Your task to perform on an android device: Open Reddit.com Image 0: 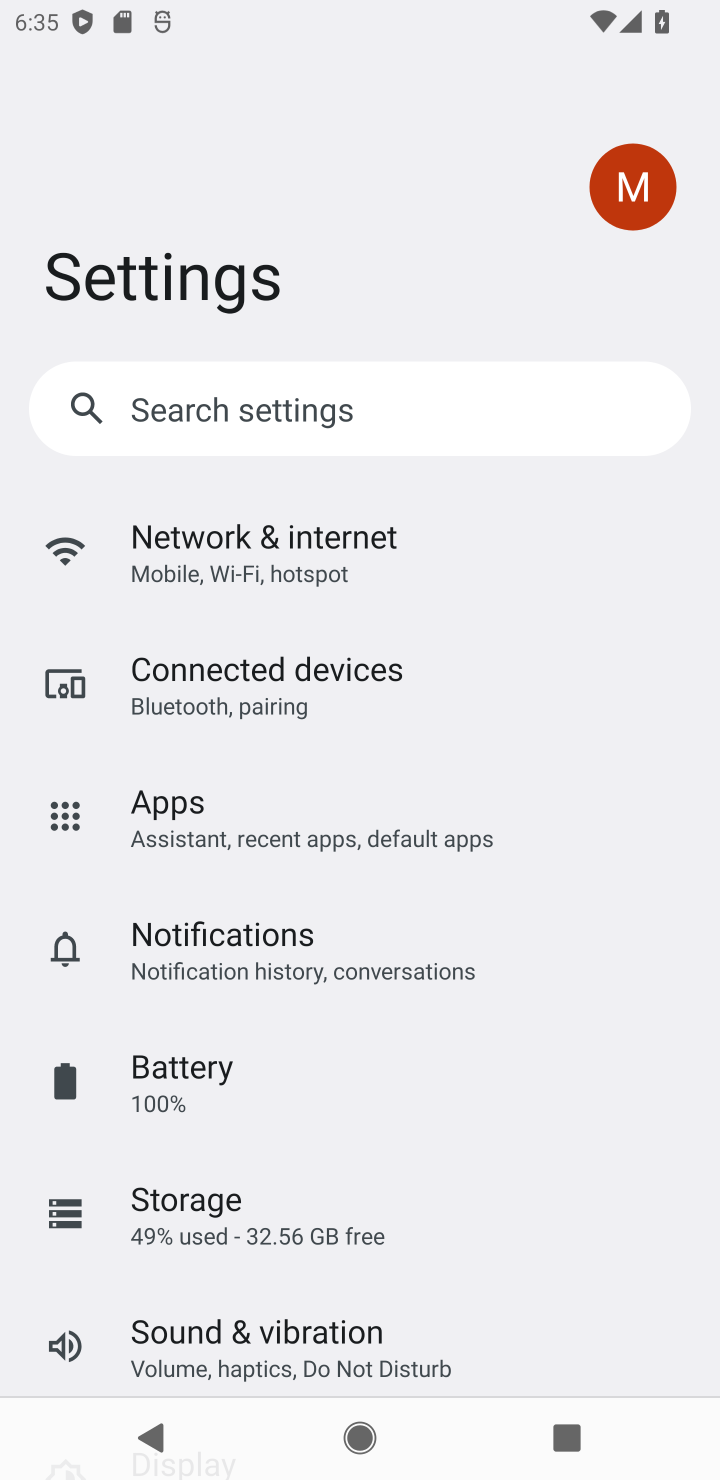
Step 0: press home button
Your task to perform on an android device: Open Reddit.com Image 1: 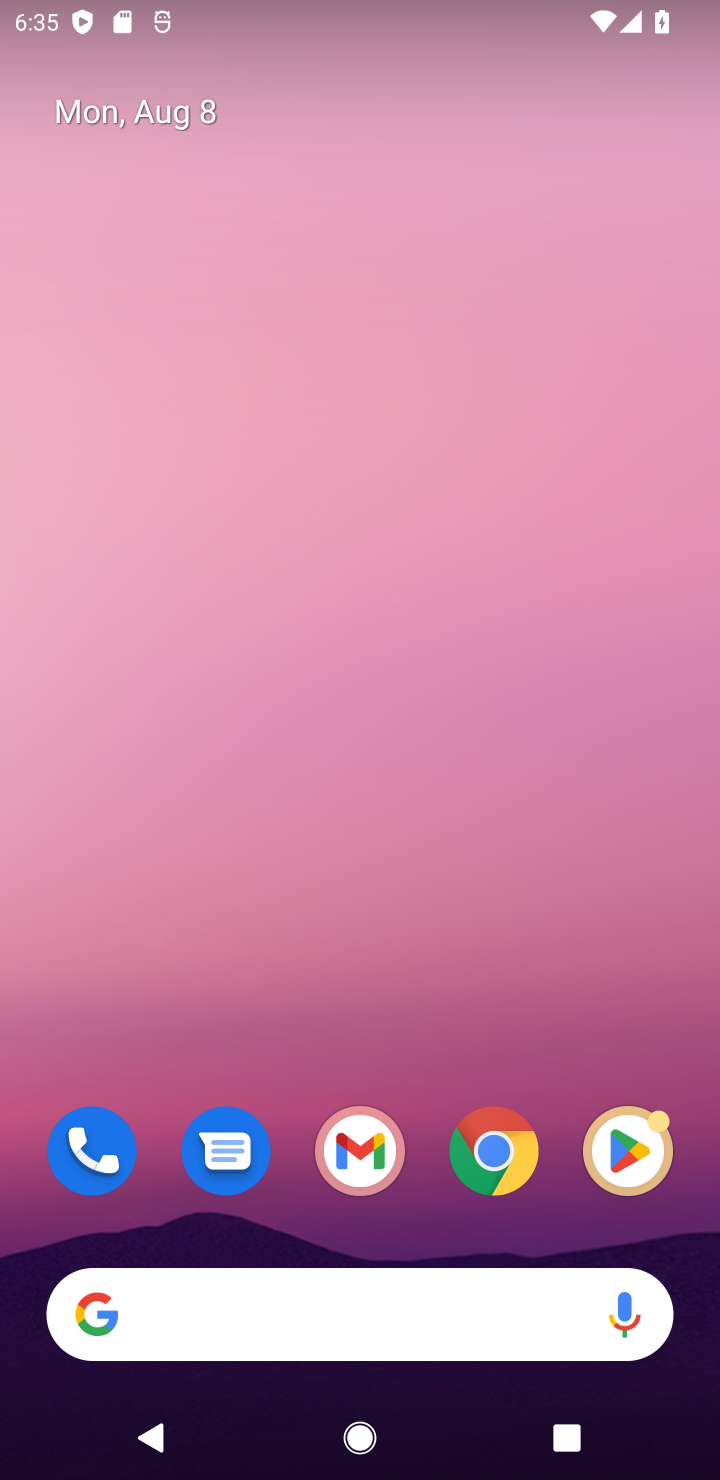
Step 1: click (491, 1160)
Your task to perform on an android device: Open Reddit.com Image 2: 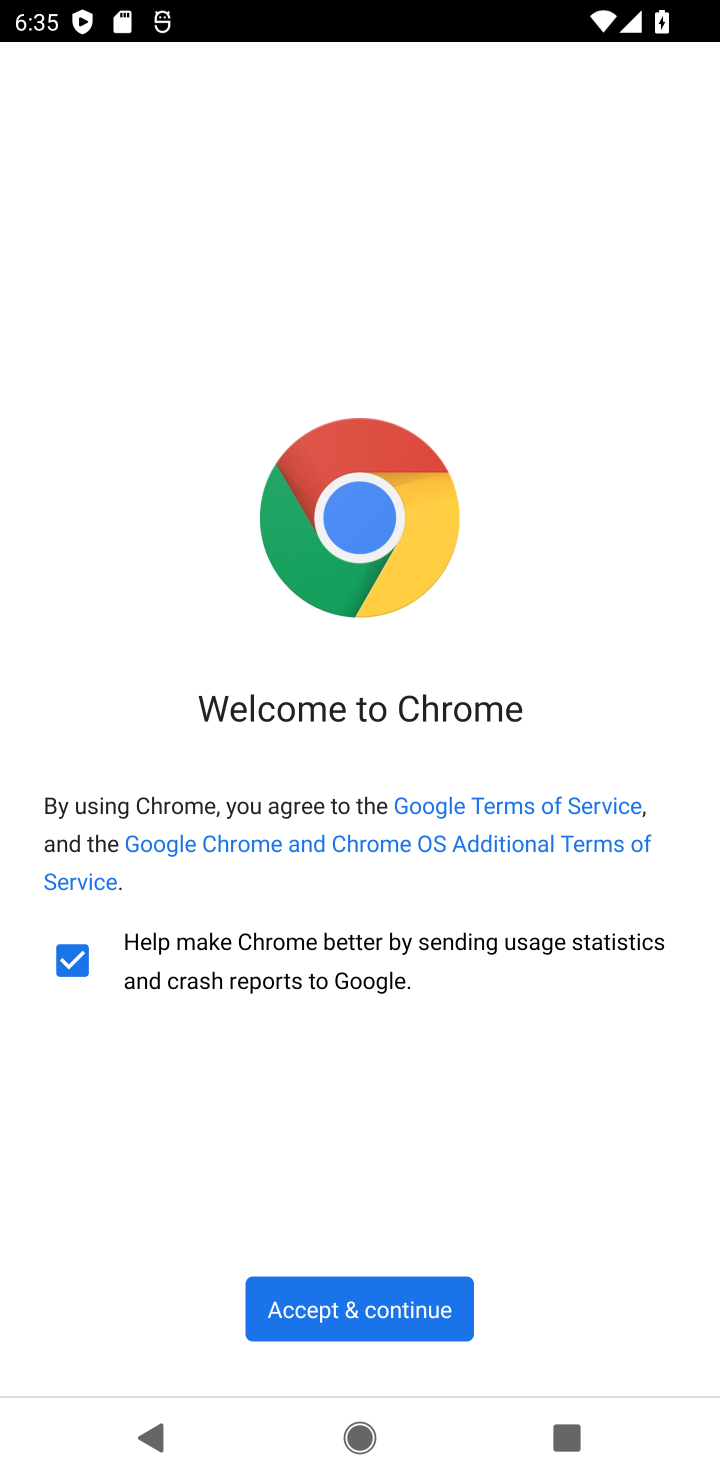
Step 2: click (387, 1324)
Your task to perform on an android device: Open Reddit.com Image 3: 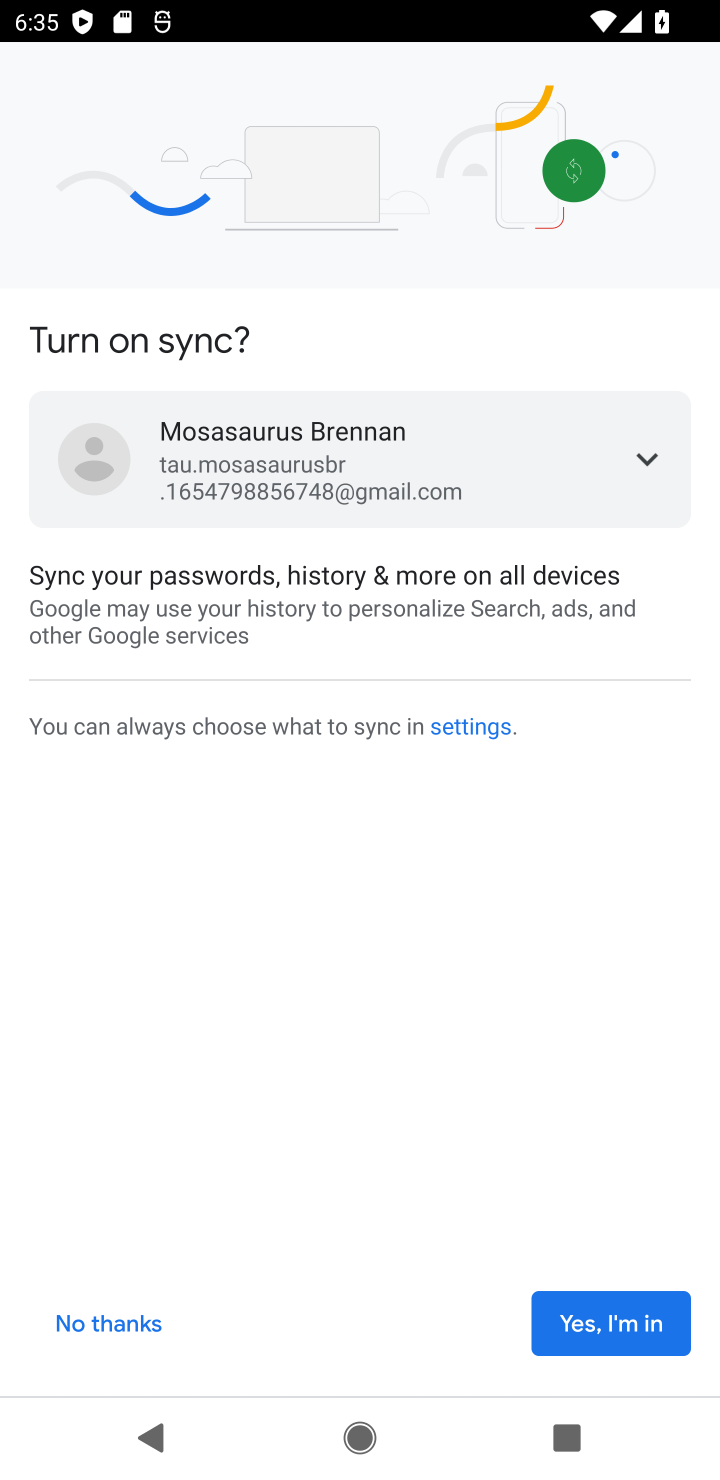
Step 3: click (607, 1321)
Your task to perform on an android device: Open Reddit.com Image 4: 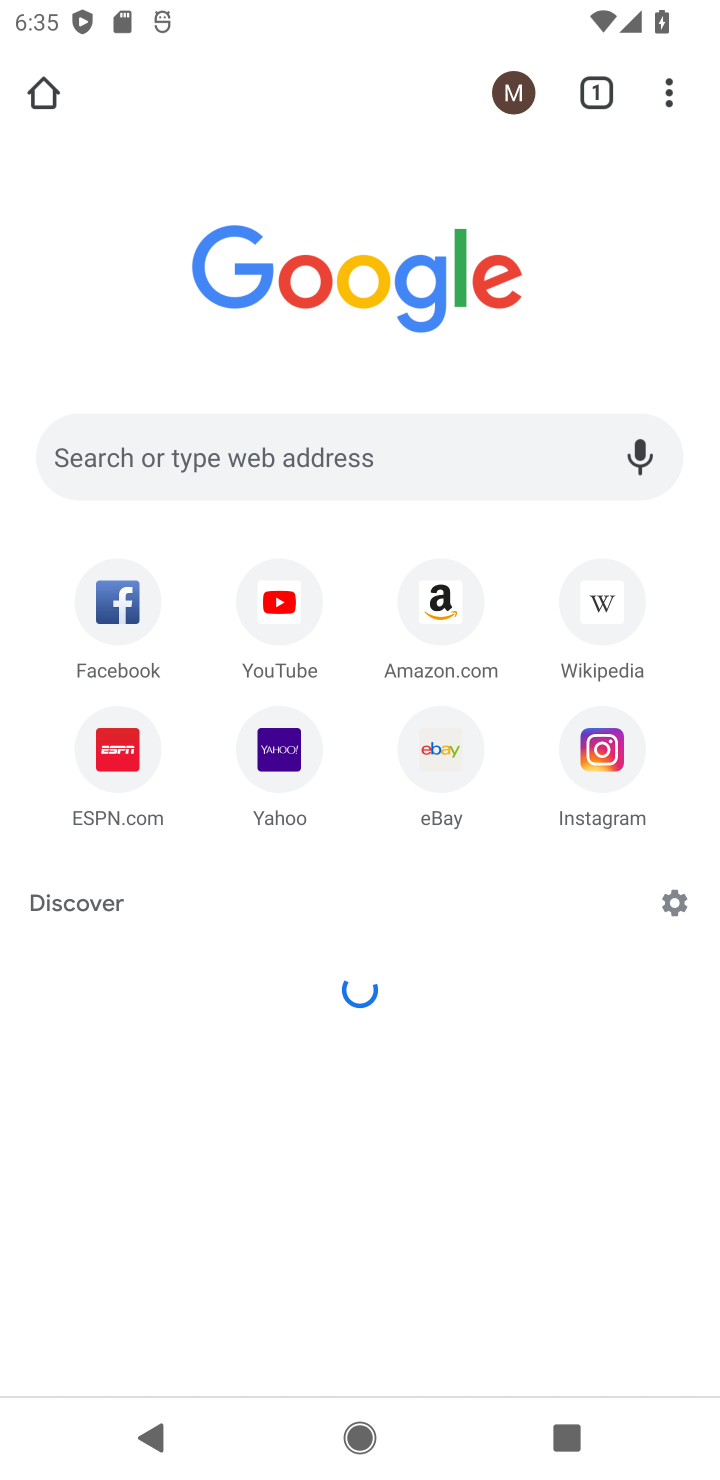
Step 4: click (340, 462)
Your task to perform on an android device: Open Reddit.com Image 5: 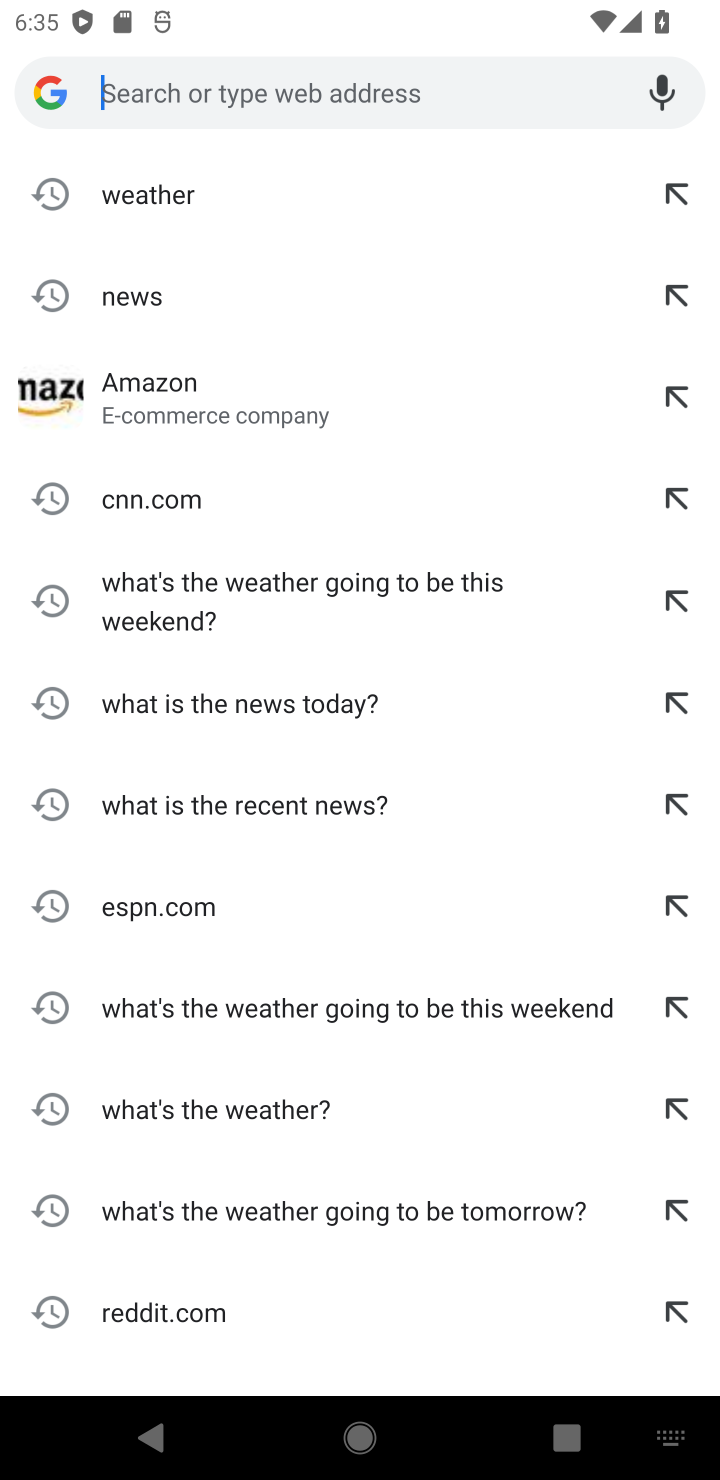
Step 5: type "reddit.com"
Your task to perform on an android device: Open Reddit.com Image 6: 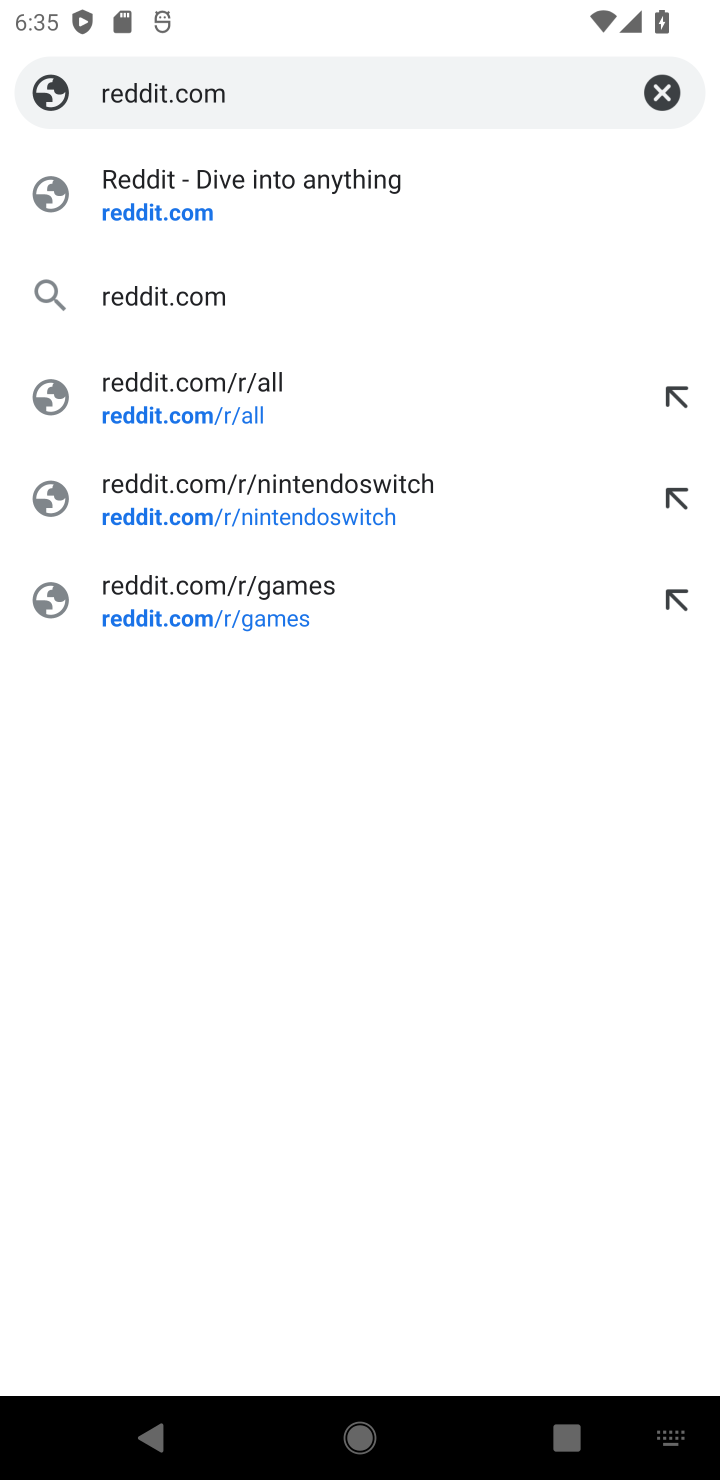
Step 6: click (215, 289)
Your task to perform on an android device: Open Reddit.com Image 7: 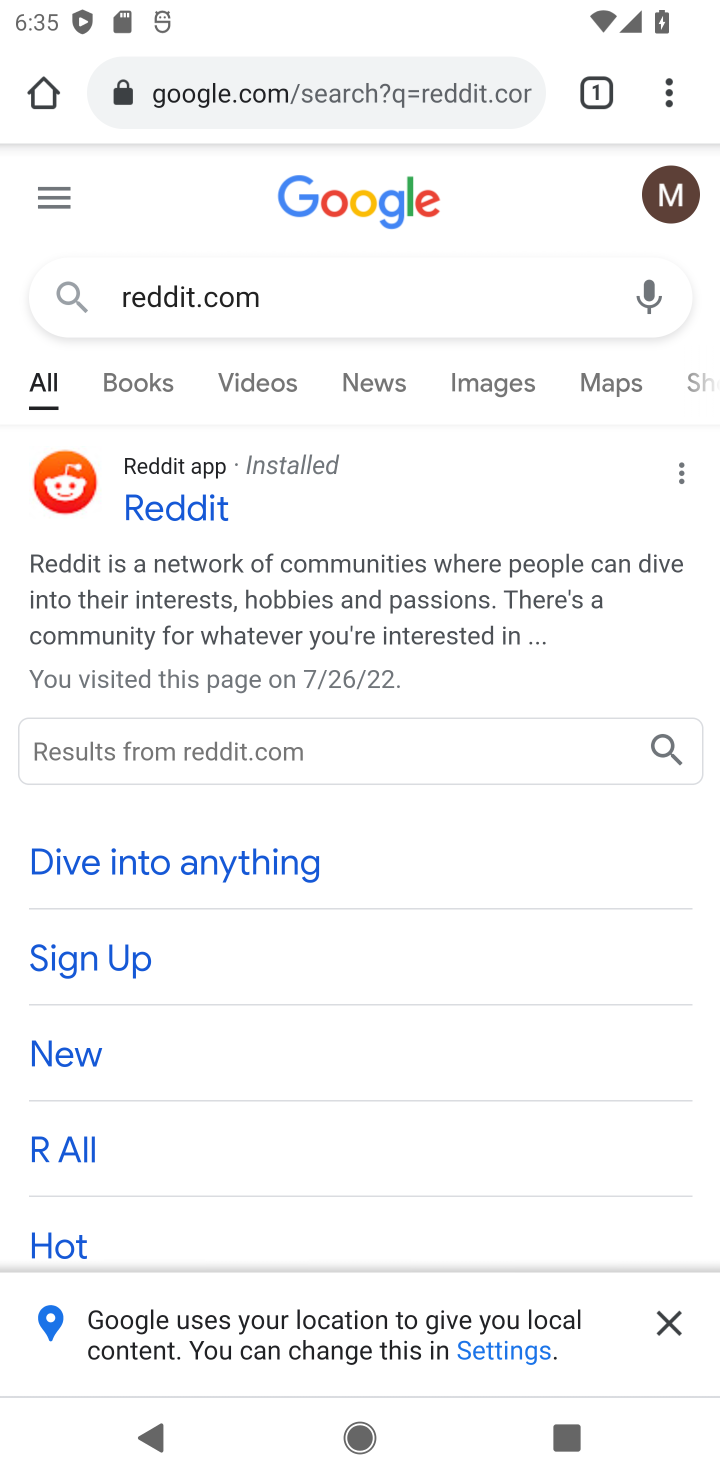
Step 7: click (217, 506)
Your task to perform on an android device: Open Reddit.com Image 8: 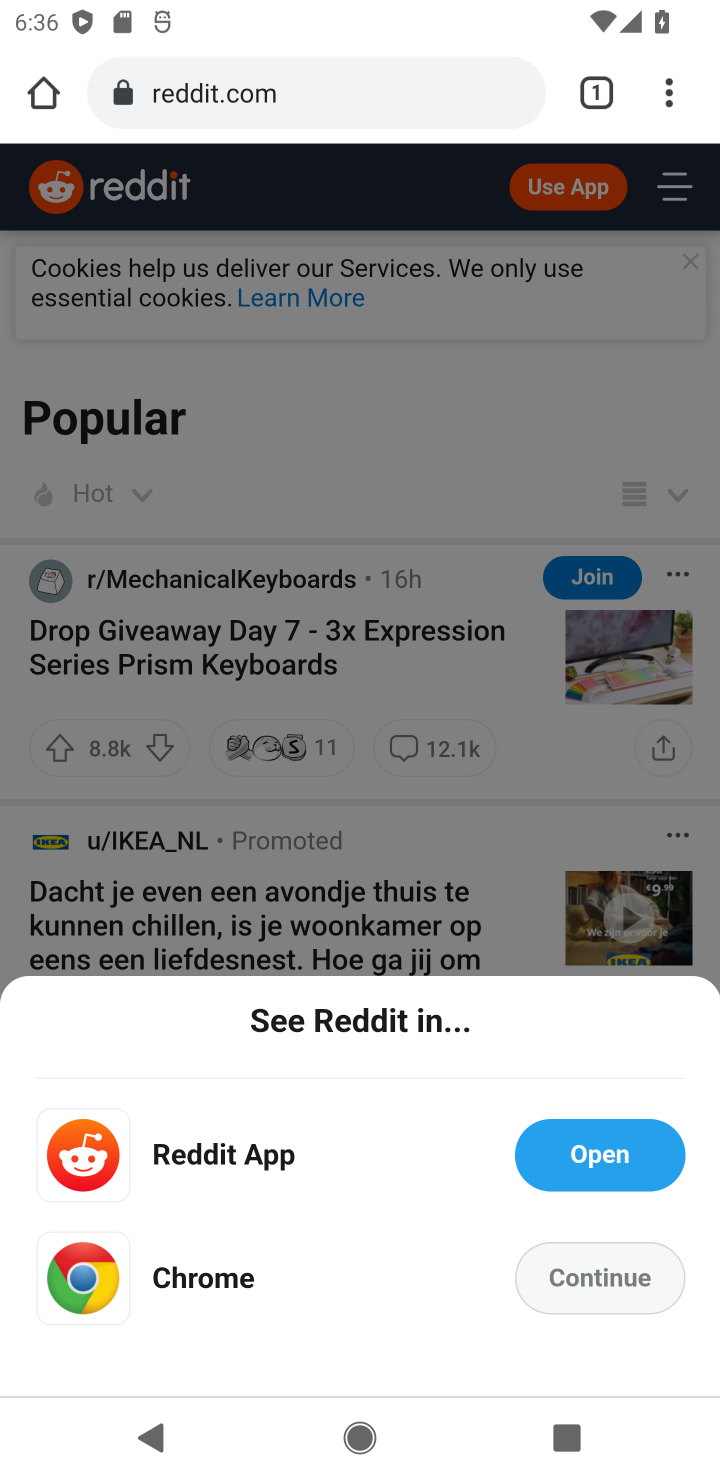
Step 8: task complete